Your task to perform on an android device: open a bookmark in the chrome app Image 0: 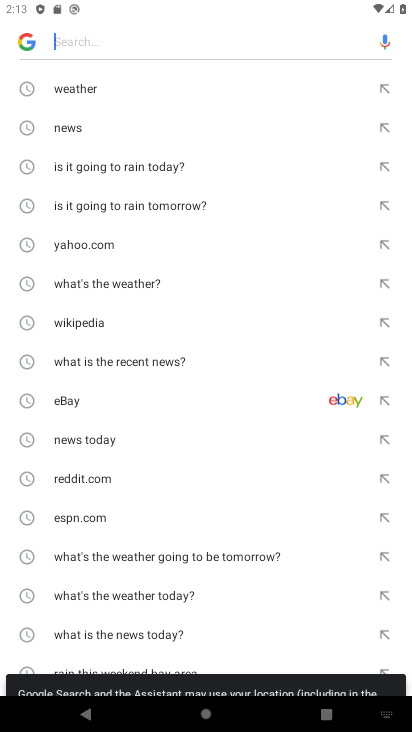
Step 0: press home button
Your task to perform on an android device: open a bookmark in the chrome app Image 1: 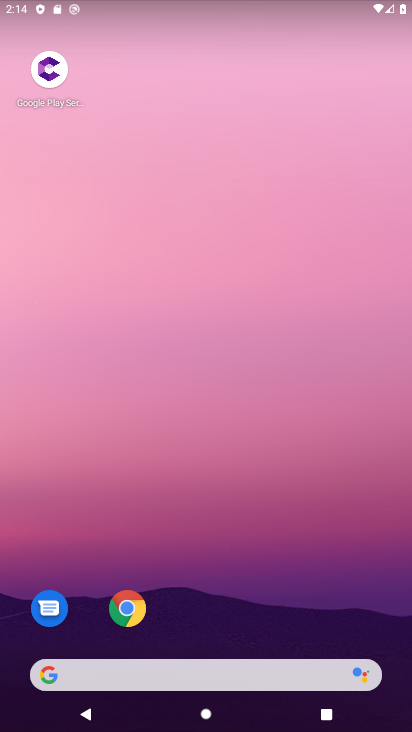
Step 1: click (125, 619)
Your task to perform on an android device: open a bookmark in the chrome app Image 2: 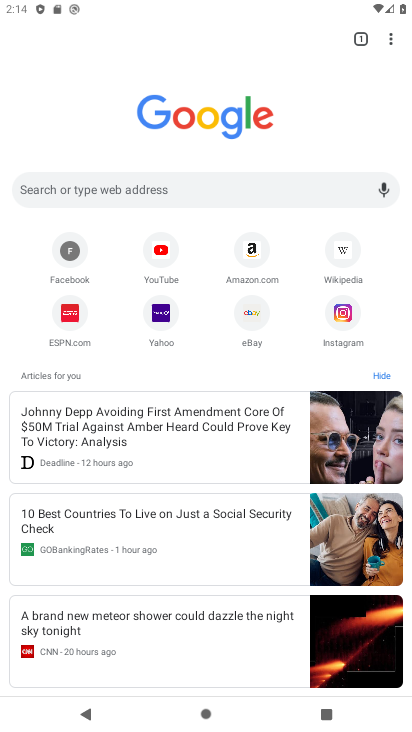
Step 2: click (399, 34)
Your task to perform on an android device: open a bookmark in the chrome app Image 3: 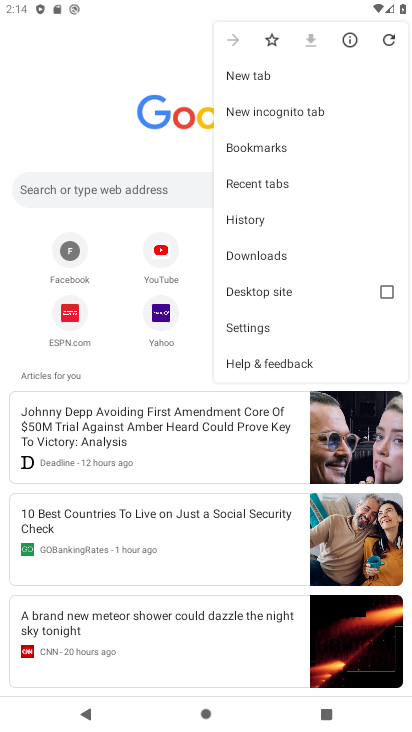
Step 3: click (266, 150)
Your task to perform on an android device: open a bookmark in the chrome app Image 4: 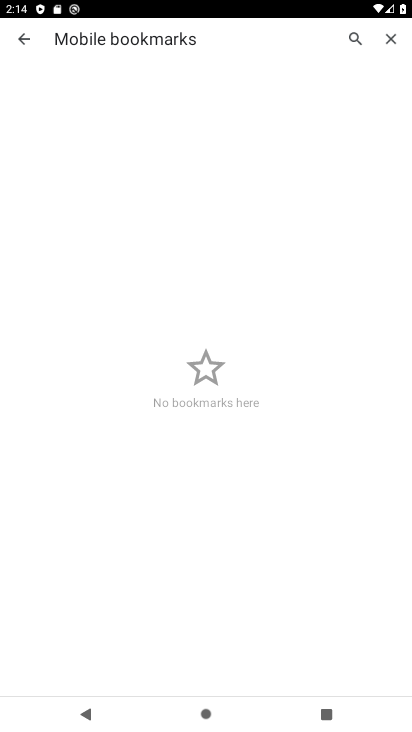
Step 4: task complete